Your task to perform on an android device: open app "AliExpress" (install if not already installed), go to login, and select forgot password Image 0: 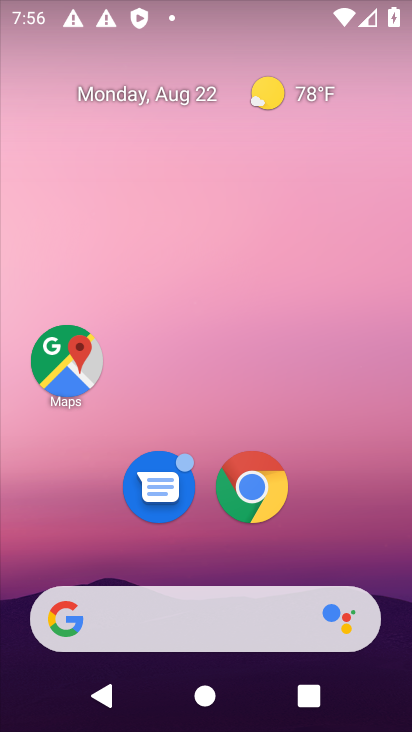
Step 0: drag from (241, 627) to (367, 5)
Your task to perform on an android device: open app "AliExpress" (install if not already installed), go to login, and select forgot password Image 1: 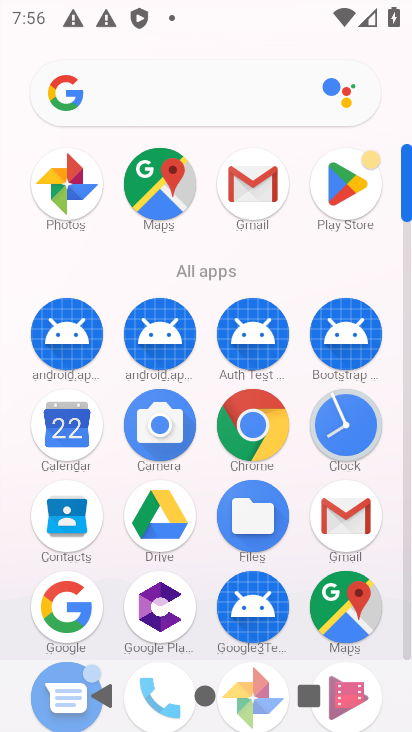
Step 1: click (332, 170)
Your task to perform on an android device: open app "AliExpress" (install if not already installed), go to login, and select forgot password Image 2: 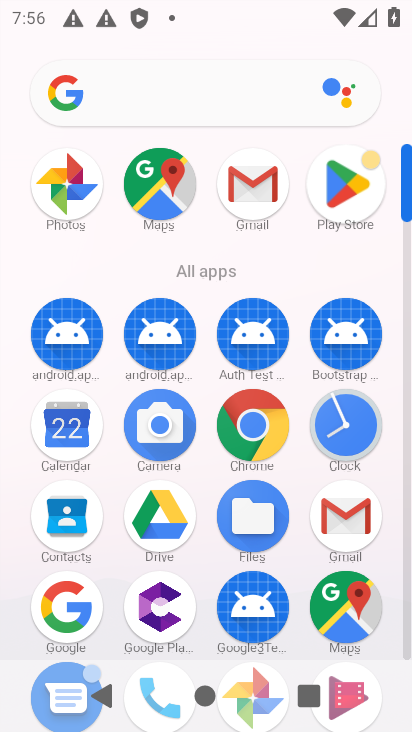
Step 2: click (342, 170)
Your task to perform on an android device: open app "AliExpress" (install if not already installed), go to login, and select forgot password Image 3: 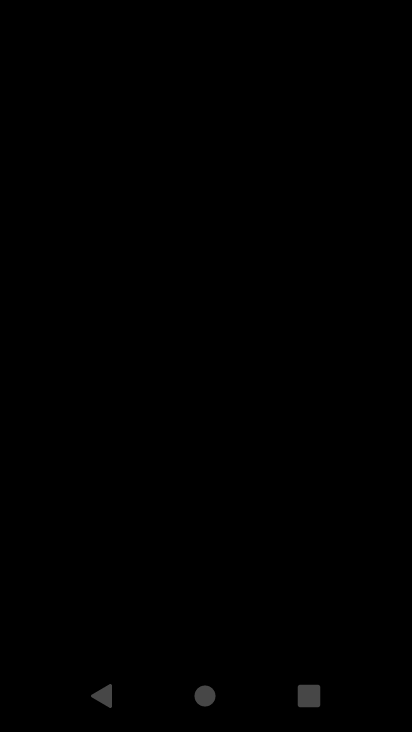
Step 3: task complete